Your task to perform on an android device: Open eBay Image 0: 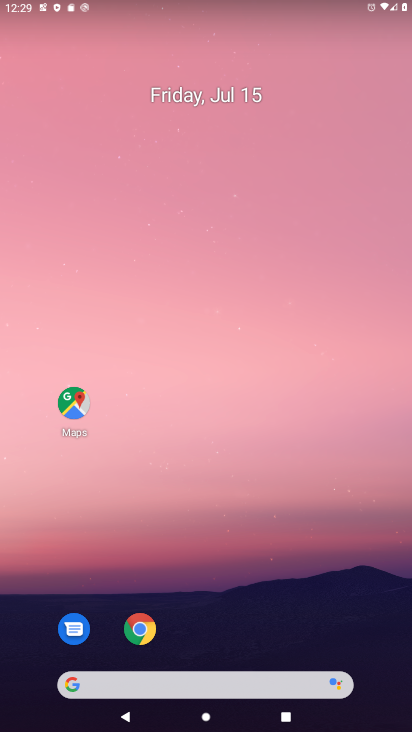
Step 0: click (64, 680)
Your task to perform on an android device: Open eBay Image 1: 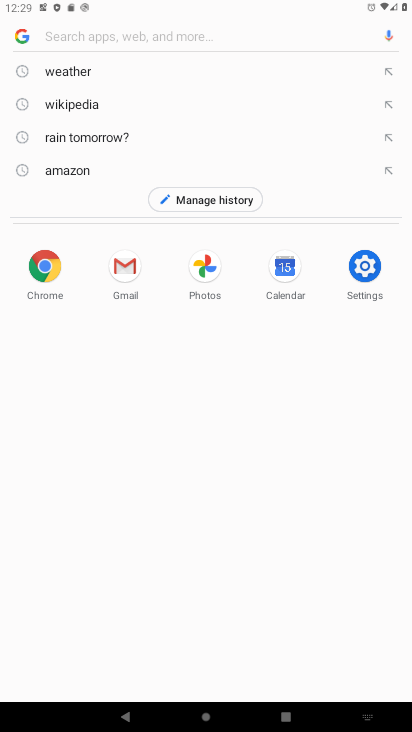
Step 1: type "eBay"
Your task to perform on an android device: Open eBay Image 2: 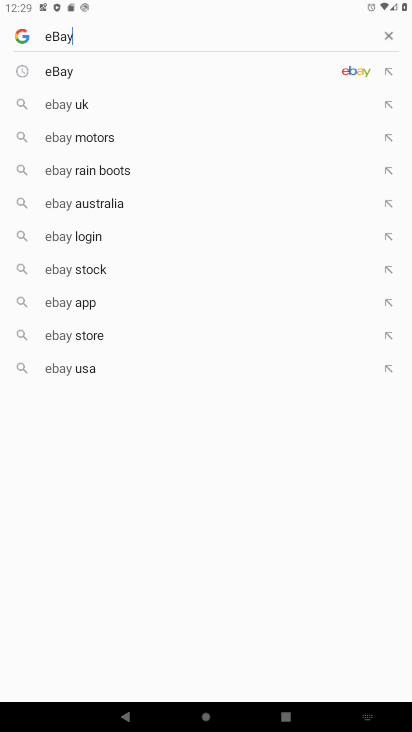
Step 2: press enter
Your task to perform on an android device: Open eBay Image 3: 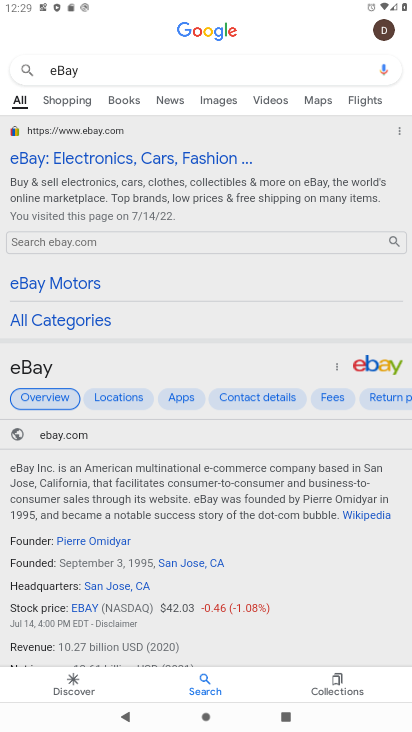
Step 3: click (99, 160)
Your task to perform on an android device: Open eBay Image 4: 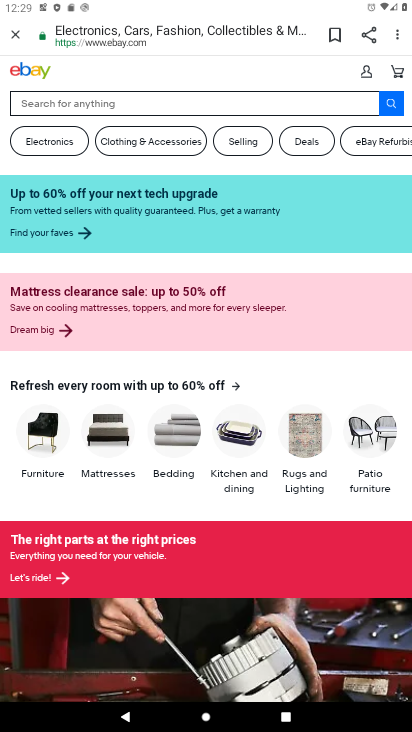
Step 4: task complete